Your task to perform on an android device: search for starred emails in the gmail app Image 0: 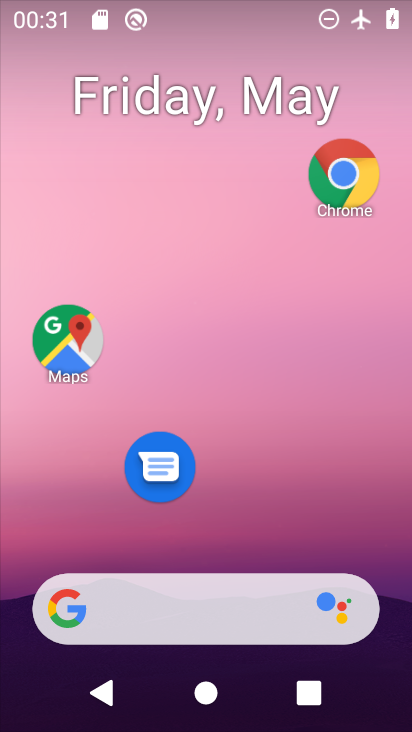
Step 0: drag from (253, 547) to (244, 295)
Your task to perform on an android device: search for starred emails in the gmail app Image 1: 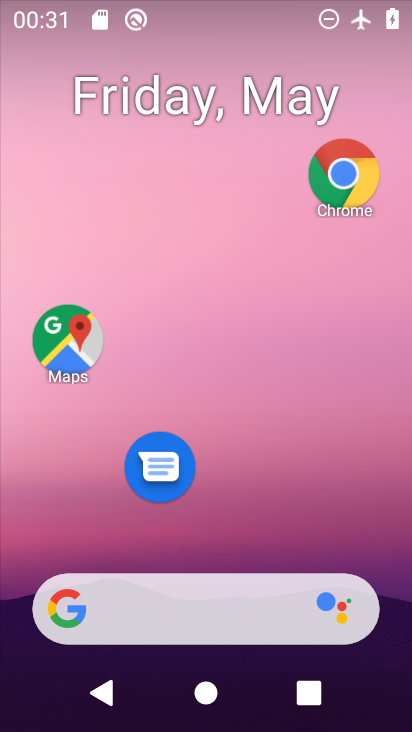
Step 1: drag from (198, 587) to (218, 264)
Your task to perform on an android device: search for starred emails in the gmail app Image 2: 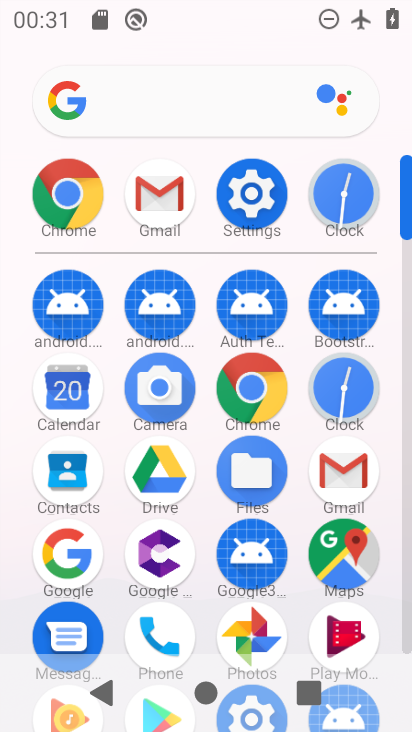
Step 2: click (333, 478)
Your task to perform on an android device: search for starred emails in the gmail app Image 3: 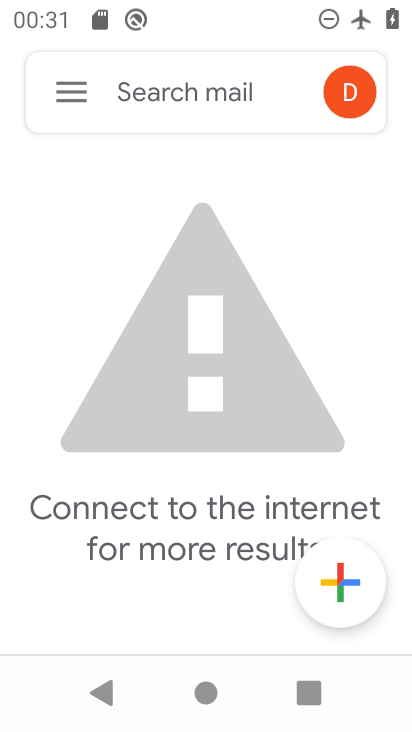
Step 3: click (71, 94)
Your task to perform on an android device: search for starred emails in the gmail app Image 4: 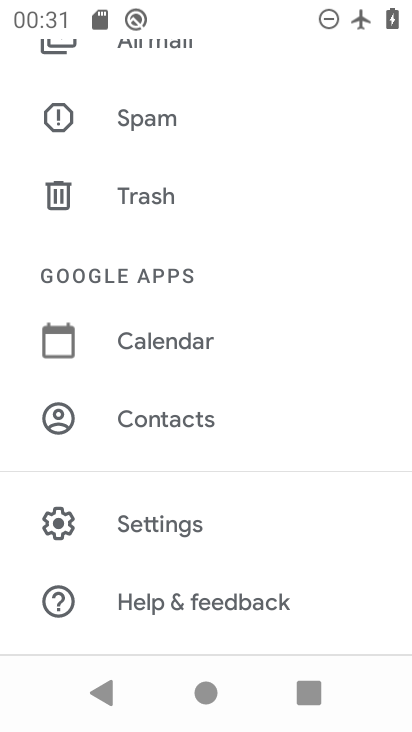
Step 4: drag from (209, 125) to (217, 562)
Your task to perform on an android device: search for starred emails in the gmail app Image 5: 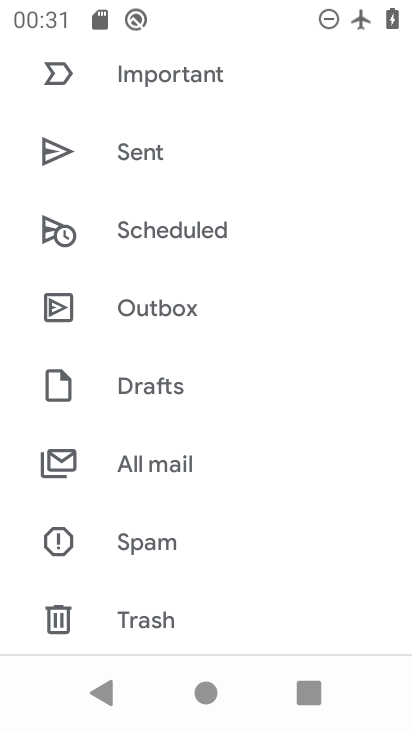
Step 5: drag from (215, 116) to (157, 495)
Your task to perform on an android device: search for starred emails in the gmail app Image 6: 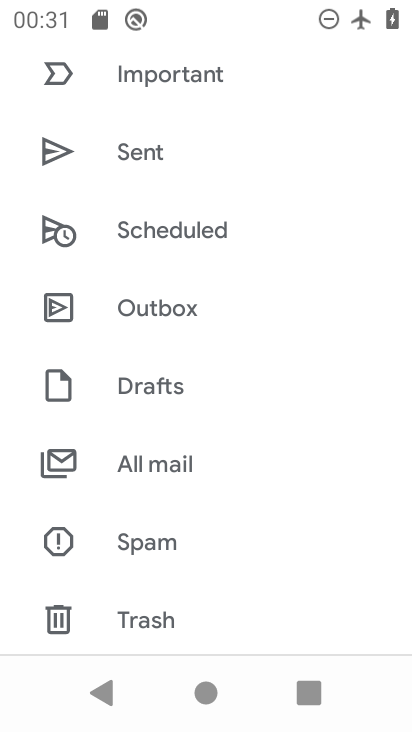
Step 6: drag from (190, 123) to (185, 545)
Your task to perform on an android device: search for starred emails in the gmail app Image 7: 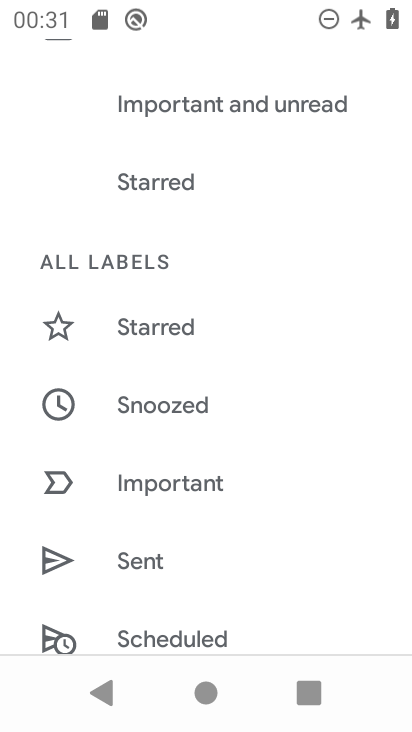
Step 7: click (187, 321)
Your task to perform on an android device: search for starred emails in the gmail app Image 8: 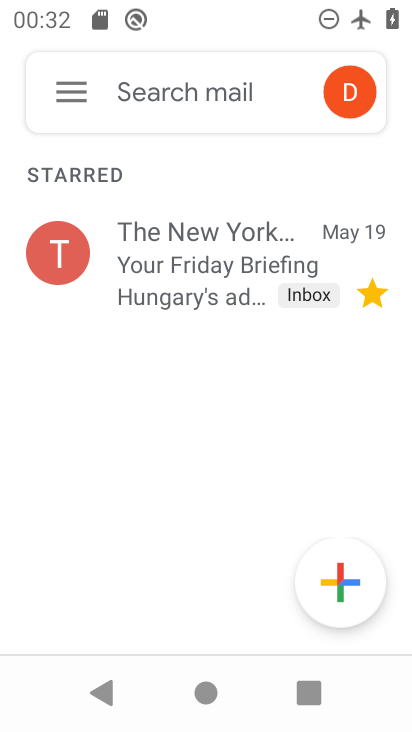
Step 8: task complete